Your task to perform on an android device: turn off location history Image 0: 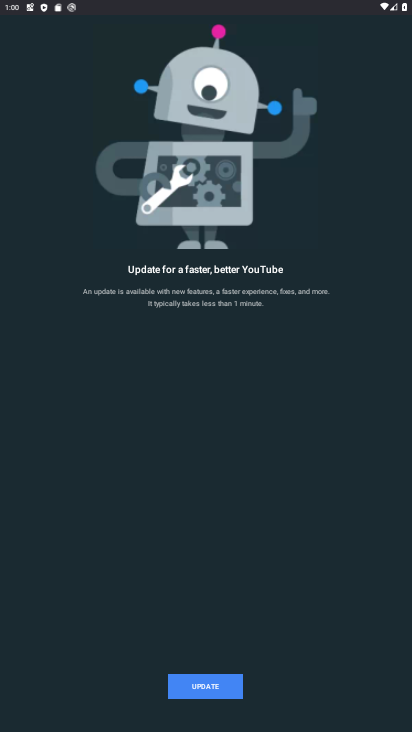
Step 0: press home button
Your task to perform on an android device: turn off location history Image 1: 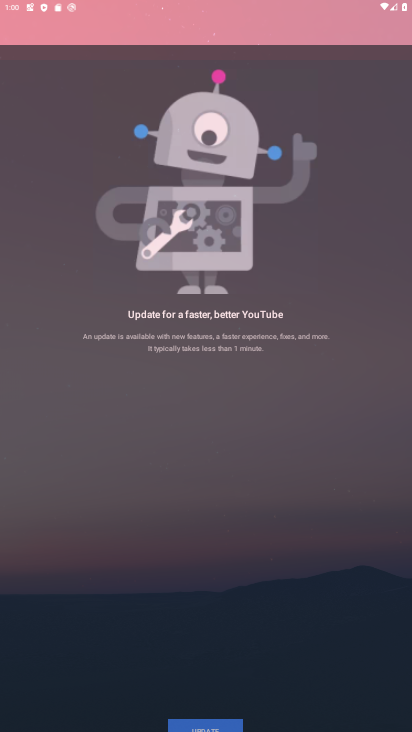
Step 1: drag from (260, 85) to (242, 18)
Your task to perform on an android device: turn off location history Image 2: 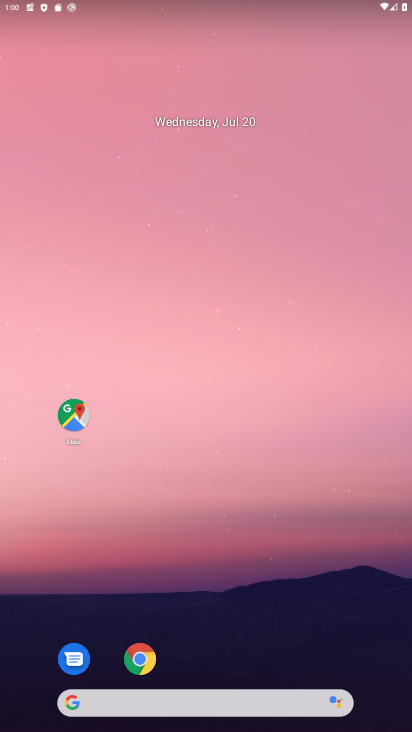
Step 2: drag from (354, 655) to (273, 111)
Your task to perform on an android device: turn off location history Image 3: 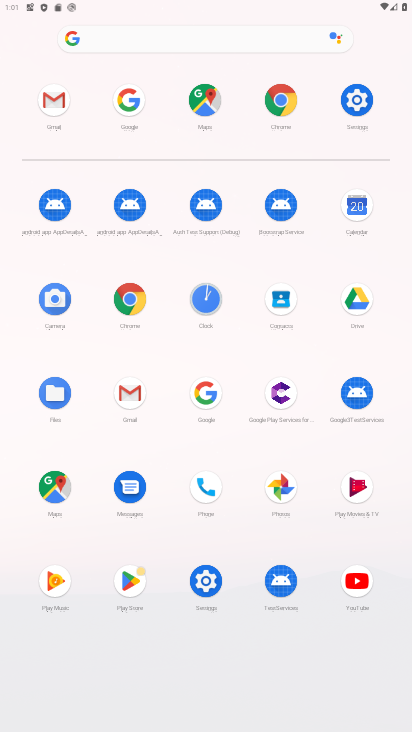
Step 3: click (210, 575)
Your task to perform on an android device: turn off location history Image 4: 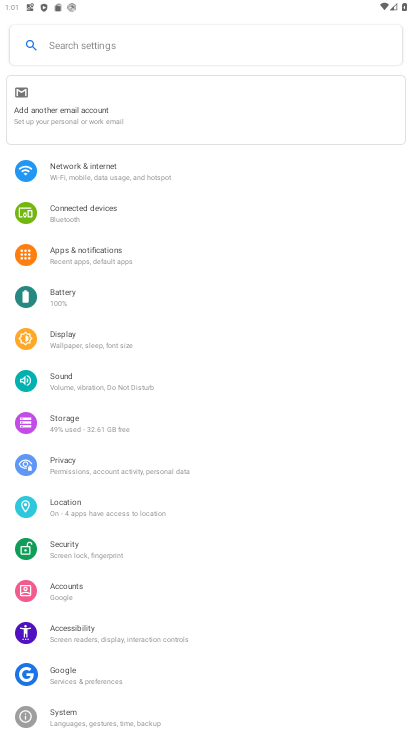
Step 4: click (61, 516)
Your task to perform on an android device: turn off location history Image 5: 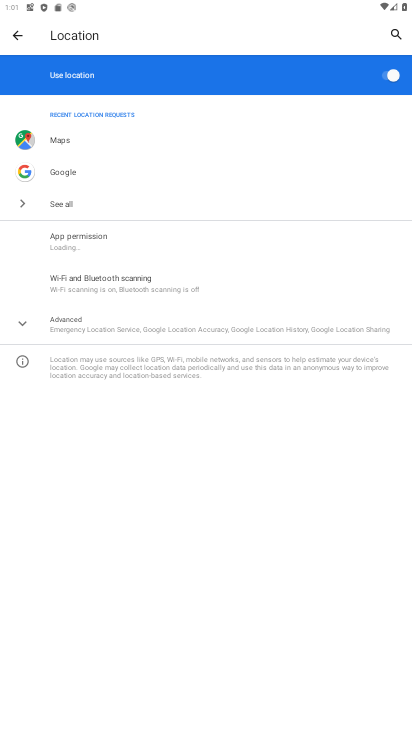
Step 5: click (73, 323)
Your task to perform on an android device: turn off location history Image 6: 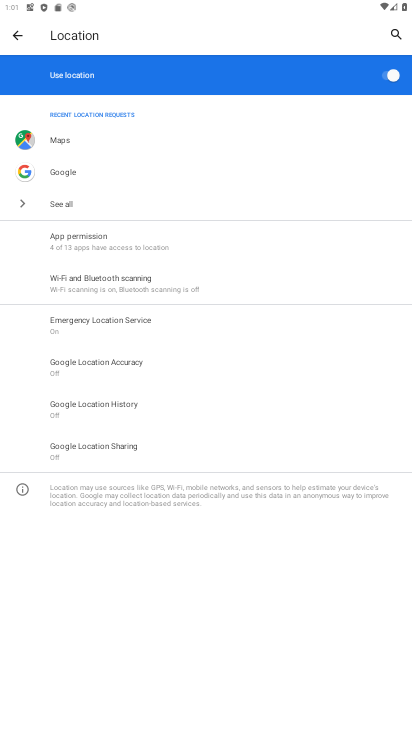
Step 6: click (122, 405)
Your task to perform on an android device: turn off location history Image 7: 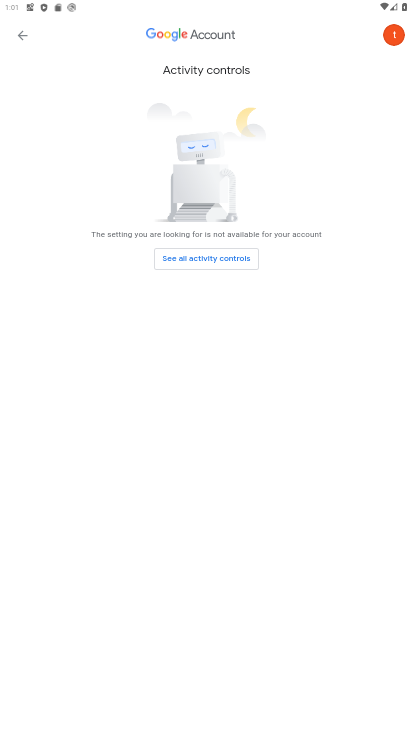
Step 7: task complete